Your task to perform on an android device: change notification settings in the gmail app Image 0: 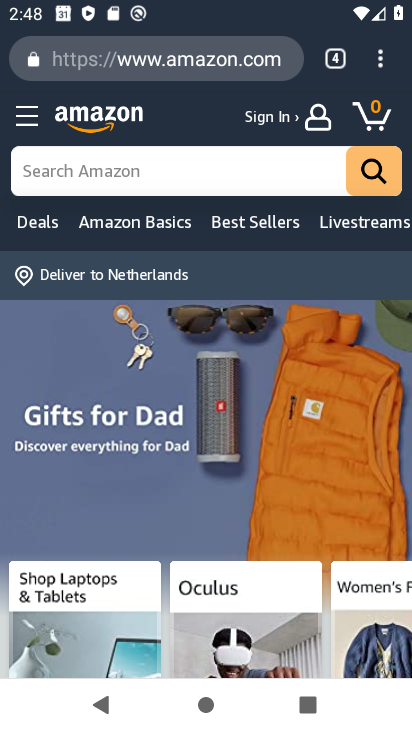
Step 0: press home button
Your task to perform on an android device: change notification settings in the gmail app Image 1: 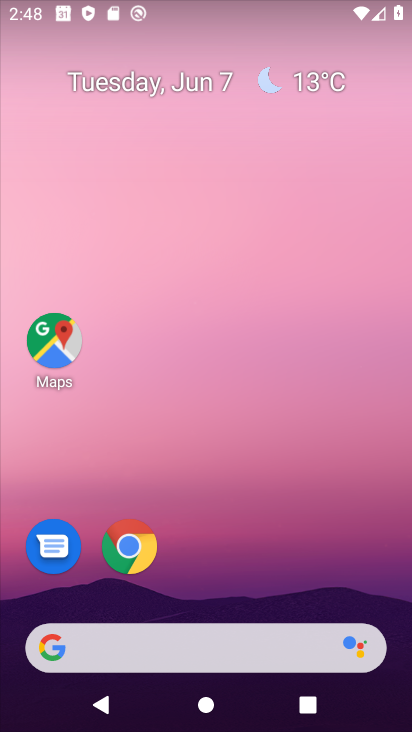
Step 1: drag from (159, 594) to (406, 181)
Your task to perform on an android device: change notification settings in the gmail app Image 2: 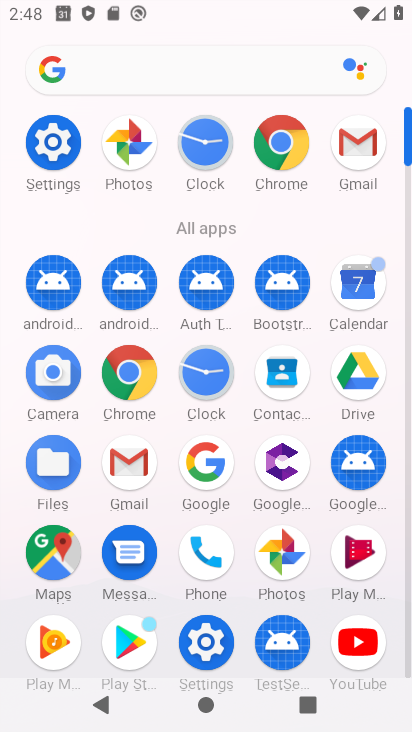
Step 2: click (356, 141)
Your task to perform on an android device: change notification settings in the gmail app Image 3: 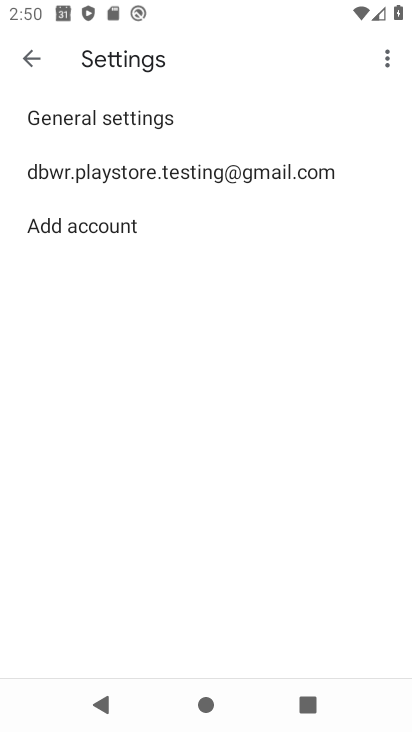
Step 3: click (165, 160)
Your task to perform on an android device: change notification settings in the gmail app Image 4: 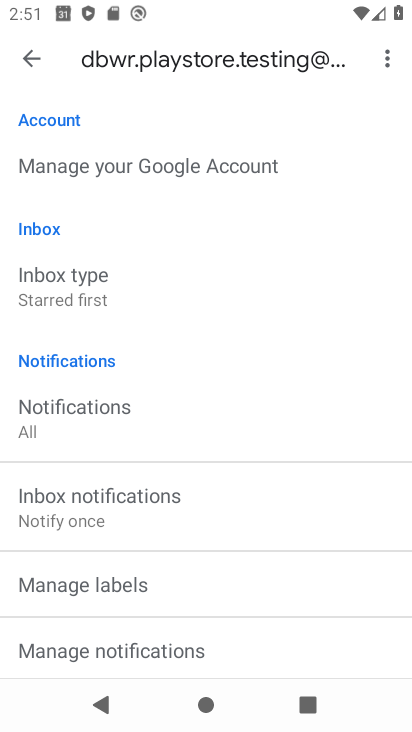
Step 4: click (68, 416)
Your task to perform on an android device: change notification settings in the gmail app Image 5: 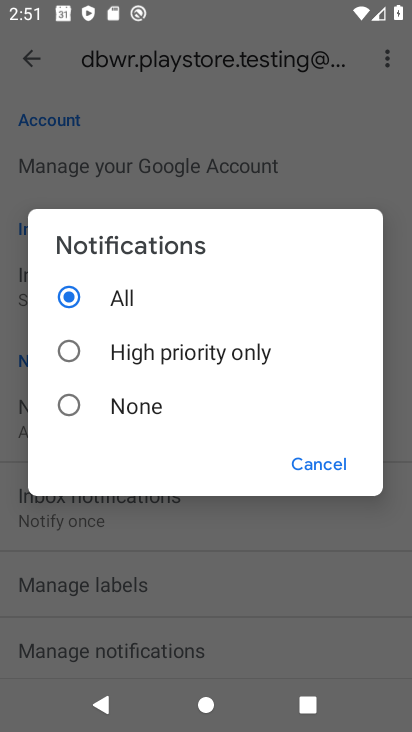
Step 5: click (231, 360)
Your task to perform on an android device: change notification settings in the gmail app Image 6: 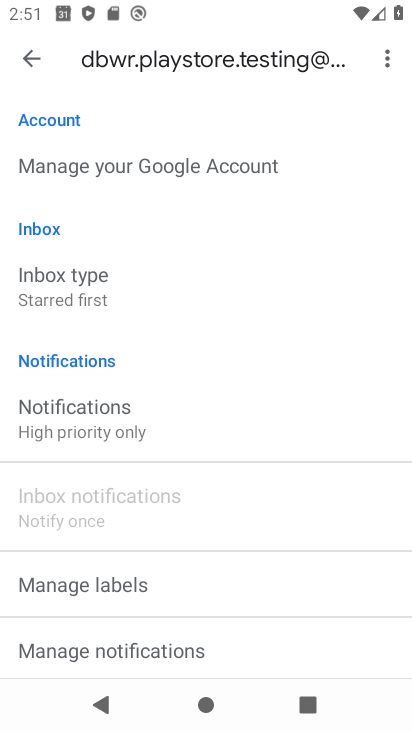
Step 6: task complete